Your task to perform on an android device: What is the news today? Image 0: 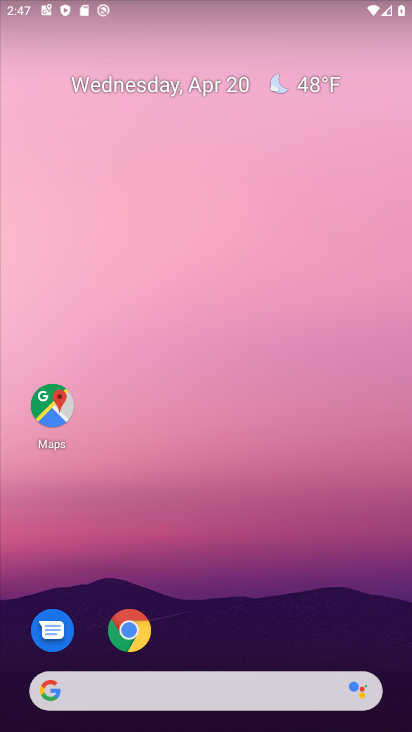
Step 0: drag from (235, 711) to (240, 281)
Your task to perform on an android device: What is the news today? Image 1: 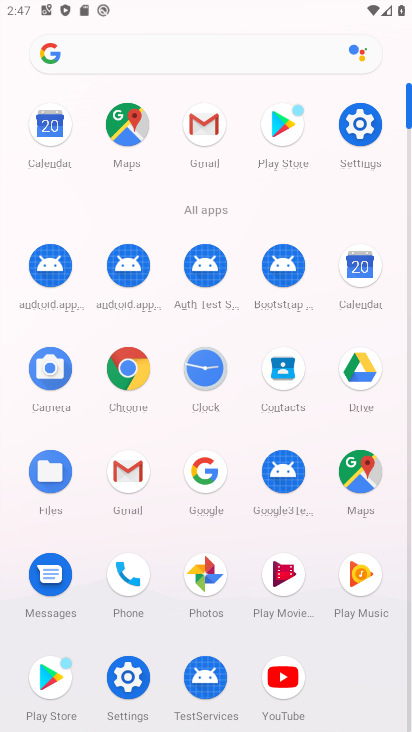
Step 1: press home button
Your task to perform on an android device: What is the news today? Image 2: 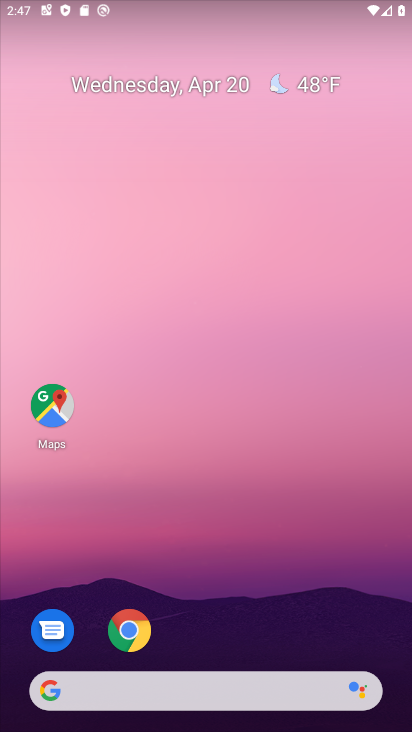
Step 2: click (144, 712)
Your task to perform on an android device: What is the news today? Image 3: 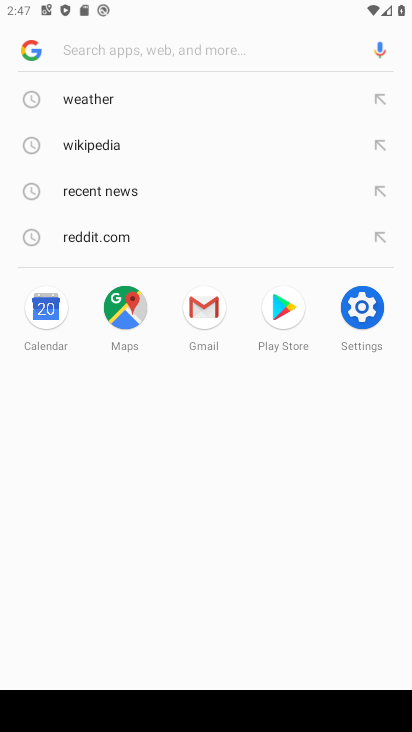
Step 3: type "tod"
Your task to perform on an android device: What is the news today? Image 4: 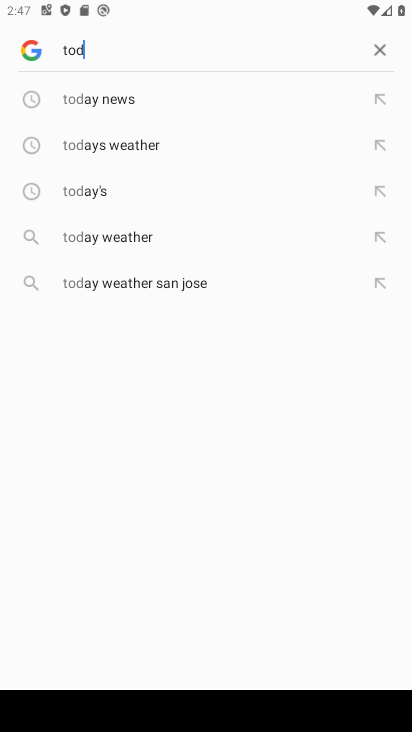
Step 4: click (165, 111)
Your task to perform on an android device: What is the news today? Image 5: 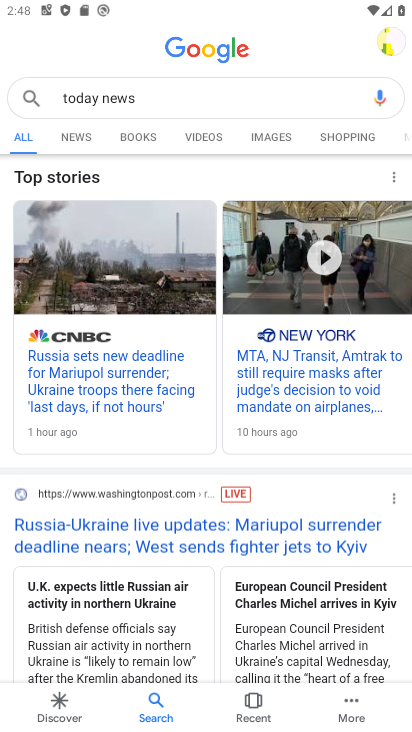
Step 5: task complete